Your task to perform on an android device: change keyboard looks Image 0: 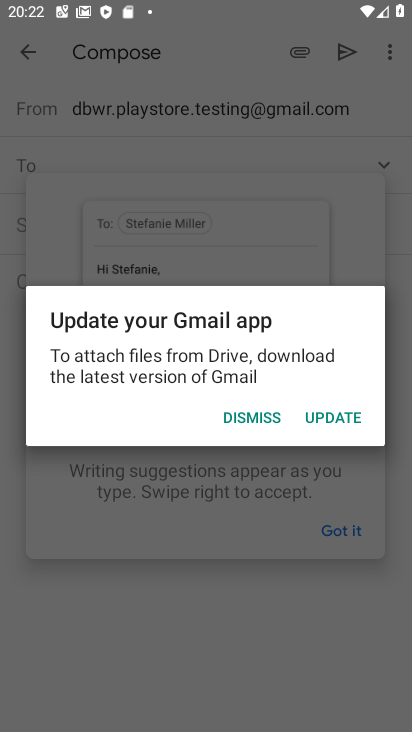
Step 0: task complete